Your task to perform on an android device: toggle notification dots Image 0: 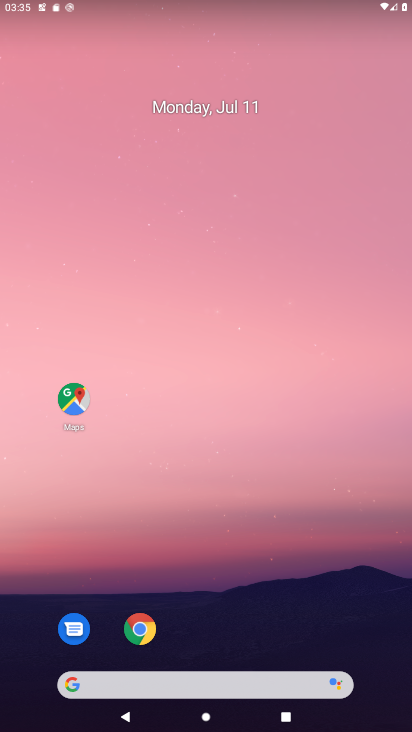
Step 0: drag from (303, 548) to (304, 71)
Your task to perform on an android device: toggle notification dots Image 1: 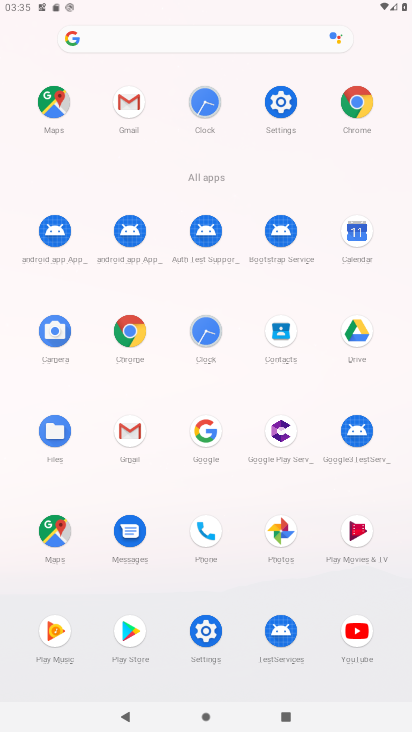
Step 1: click (282, 109)
Your task to perform on an android device: toggle notification dots Image 2: 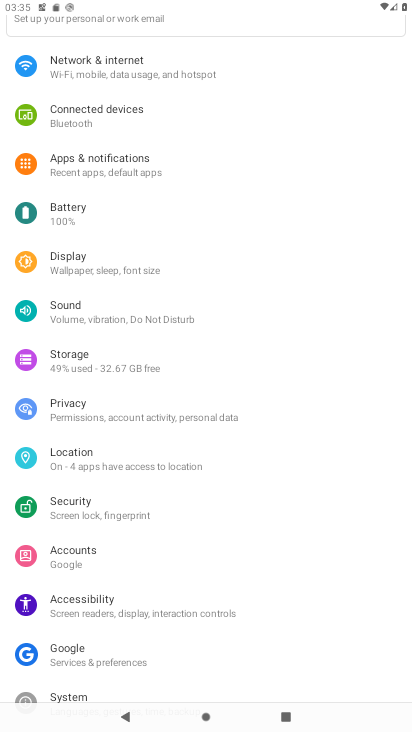
Step 2: click (128, 156)
Your task to perform on an android device: toggle notification dots Image 3: 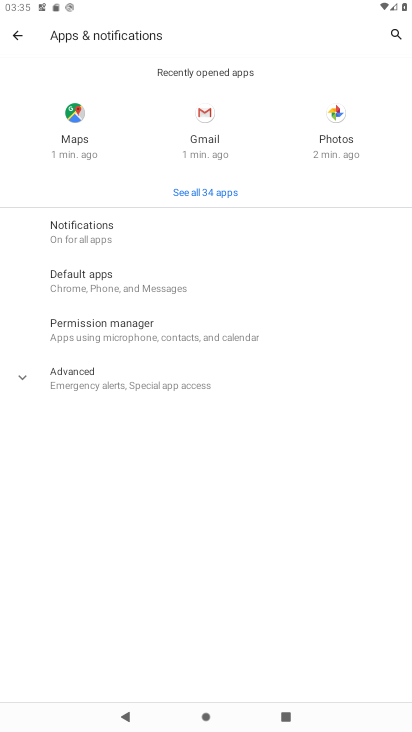
Step 3: click (113, 231)
Your task to perform on an android device: toggle notification dots Image 4: 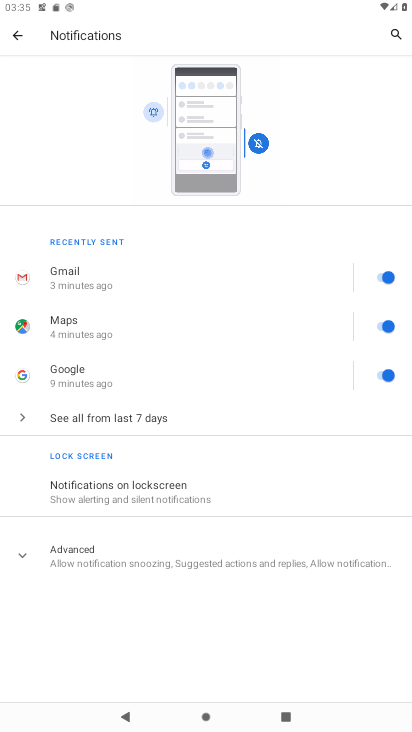
Step 4: click (91, 553)
Your task to perform on an android device: toggle notification dots Image 5: 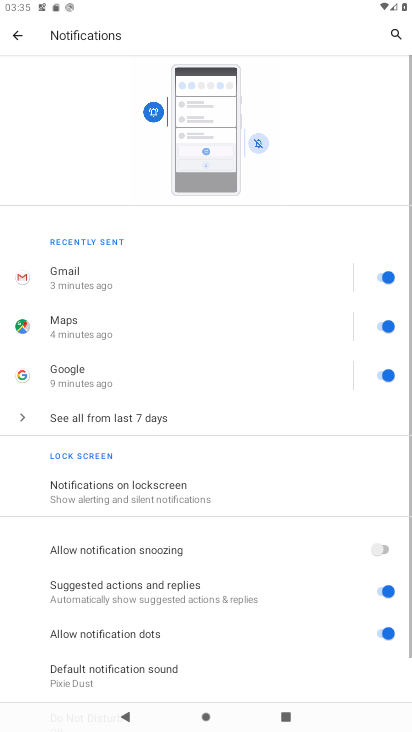
Step 5: drag from (153, 599) to (223, 300)
Your task to perform on an android device: toggle notification dots Image 6: 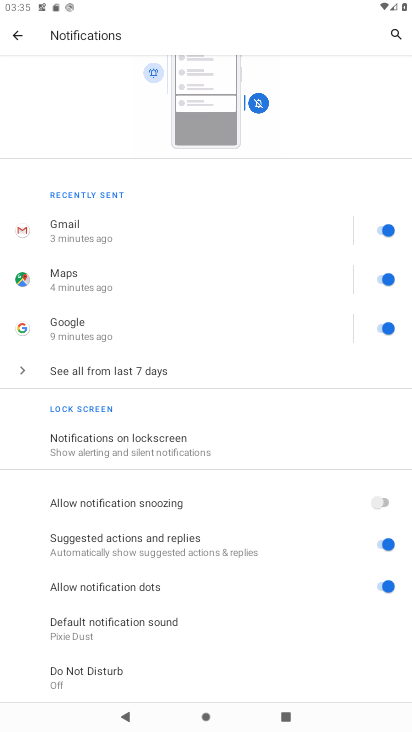
Step 6: click (386, 589)
Your task to perform on an android device: toggle notification dots Image 7: 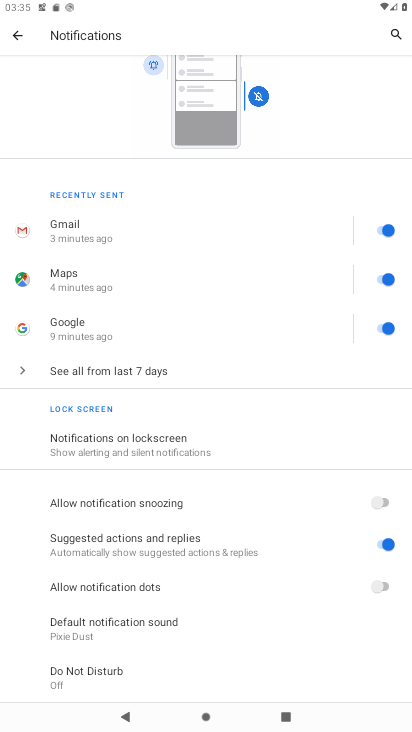
Step 7: task complete